Your task to perform on an android device: uninstall "Viber Messenger" Image 0: 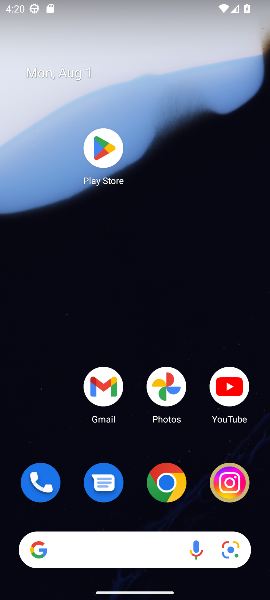
Step 0: press home button
Your task to perform on an android device: uninstall "Viber Messenger" Image 1: 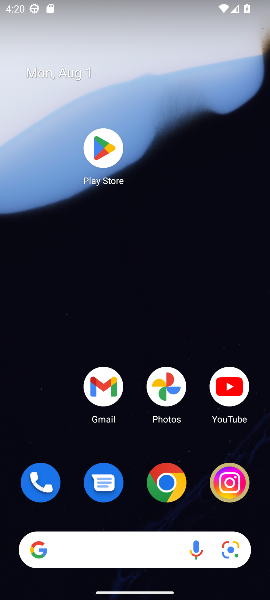
Step 1: click (105, 155)
Your task to perform on an android device: uninstall "Viber Messenger" Image 2: 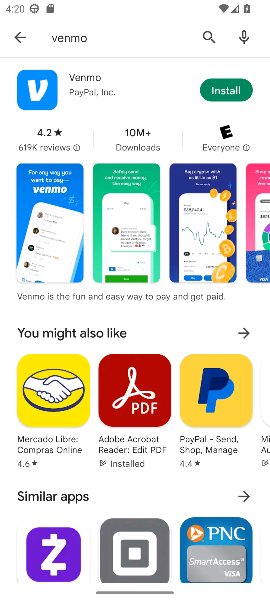
Step 2: click (202, 39)
Your task to perform on an android device: uninstall "Viber Messenger" Image 3: 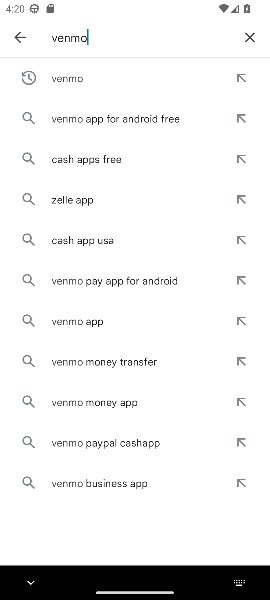
Step 3: click (247, 41)
Your task to perform on an android device: uninstall "Viber Messenger" Image 4: 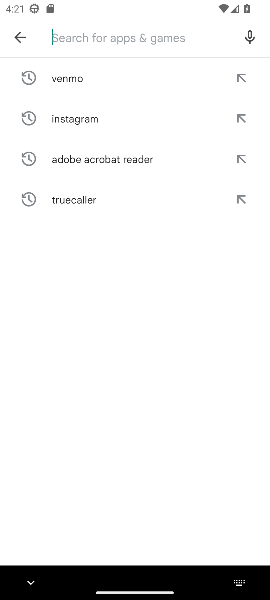
Step 4: type "Viber Messenger"
Your task to perform on an android device: uninstall "Viber Messenger" Image 5: 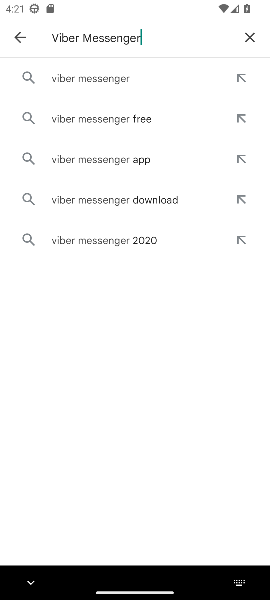
Step 5: click (86, 82)
Your task to perform on an android device: uninstall "Viber Messenger" Image 6: 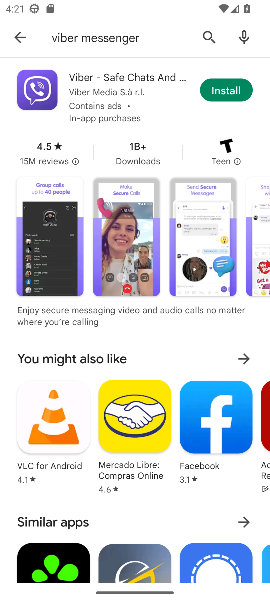
Step 6: task complete